Your task to perform on an android device: Turn on the flashlight Image 0: 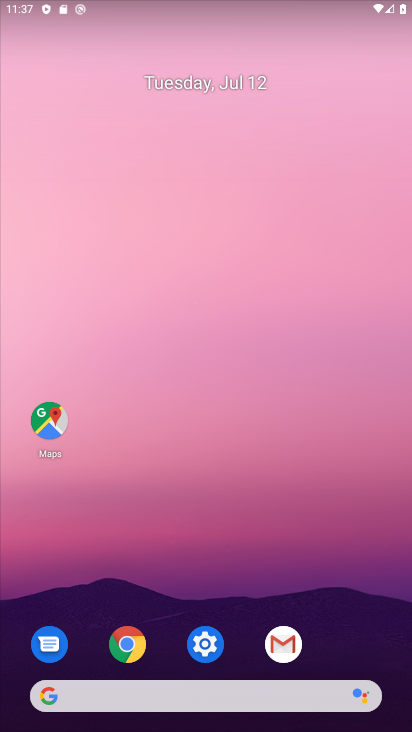
Step 0: click (208, 638)
Your task to perform on an android device: Turn on the flashlight Image 1: 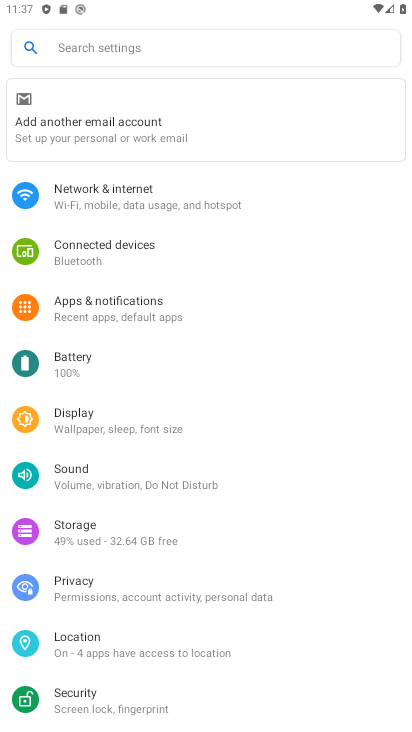
Step 1: click (92, 38)
Your task to perform on an android device: Turn on the flashlight Image 2: 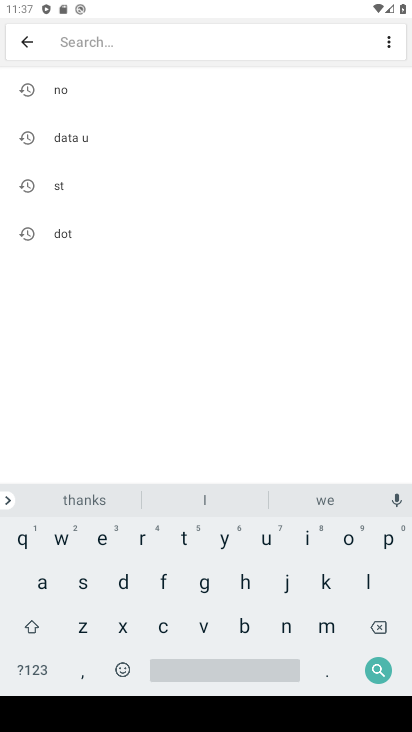
Step 2: click (163, 572)
Your task to perform on an android device: Turn on the flashlight Image 3: 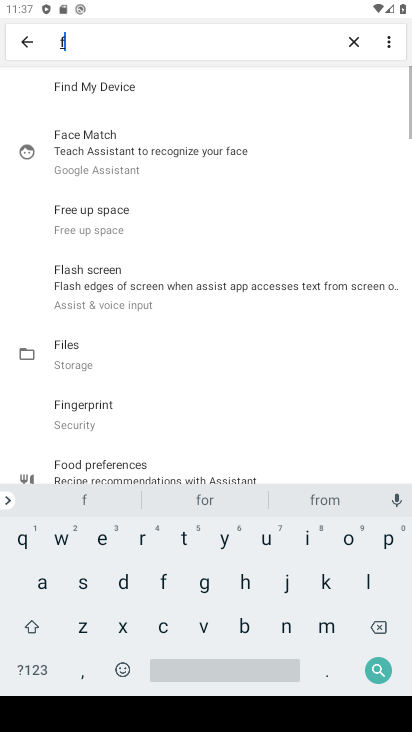
Step 3: click (372, 603)
Your task to perform on an android device: Turn on the flashlight Image 4: 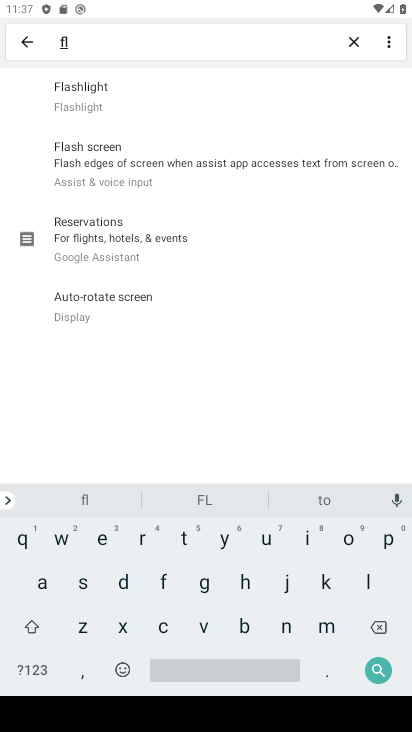
Step 4: click (99, 101)
Your task to perform on an android device: Turn on the flashlight Image 5: 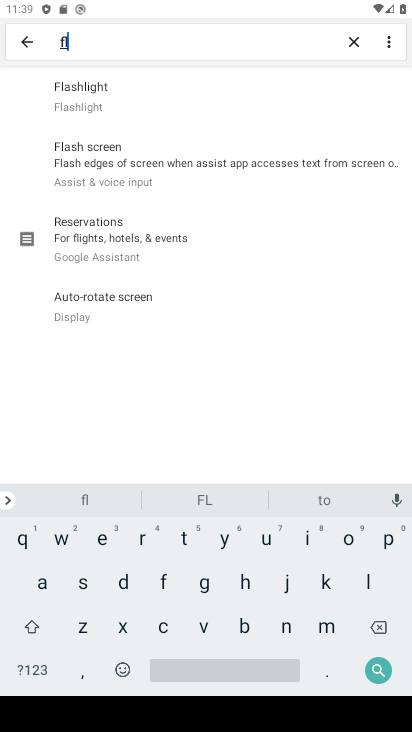
Step 5: task complete